Your task to perform on an android device: When is my next appointment? Image 0: 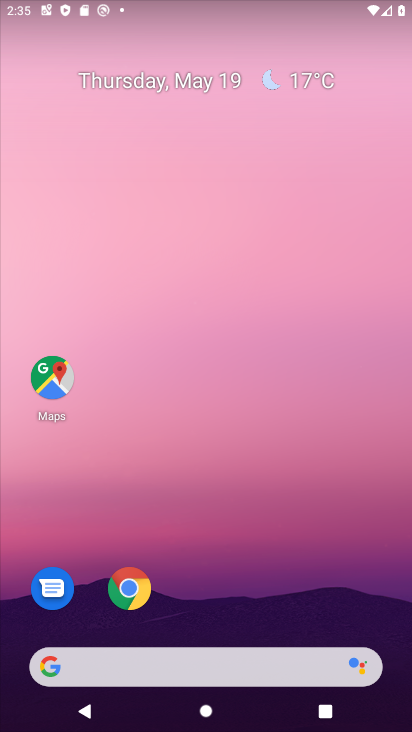
Step 0: drag from (291, 512) to (293, 27)
Your task to perform on an android device: When is my next appointment? Image 1: 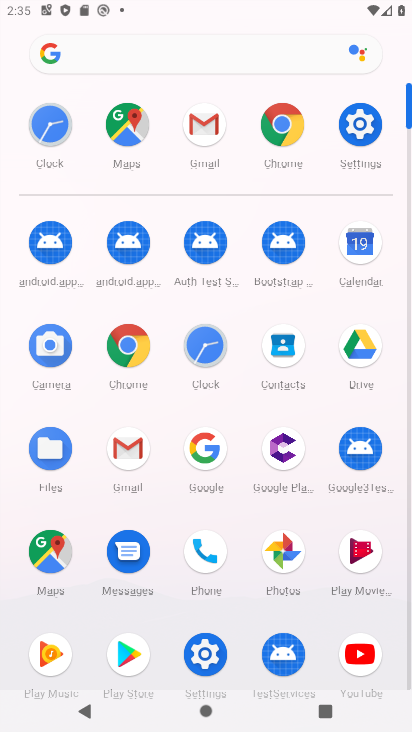
Step 1: click (358, 233)
Your task to perform on an android device: When is my next appointment? Image 2: 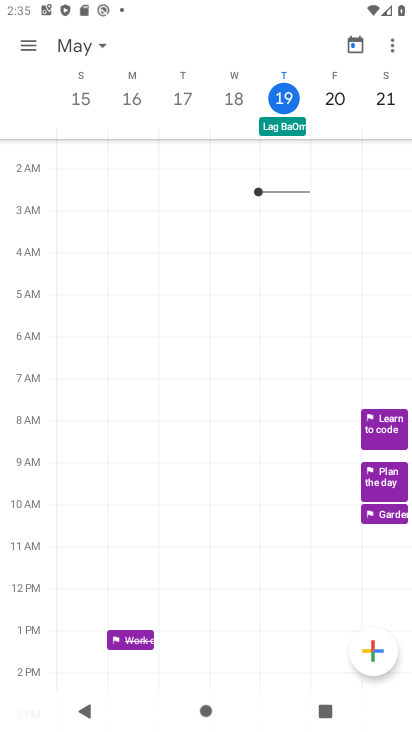
Step 2: click (35, 45)
Your task to perform on an android device: When is my next appointment? Image 3: 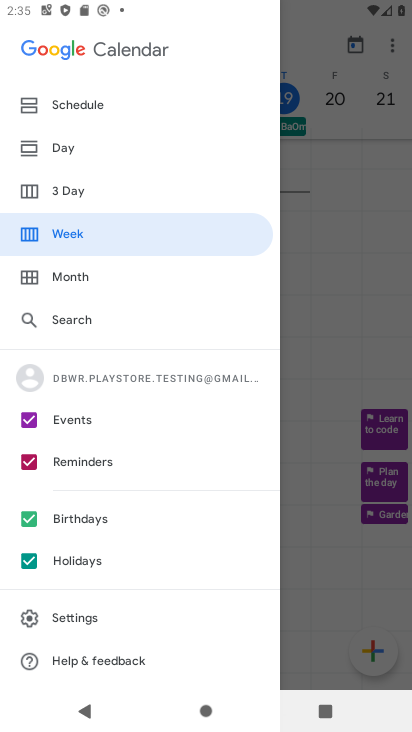
Step 3: click (392, 258)
Your task to perform on an android device: When is my next appointment? Image 4: 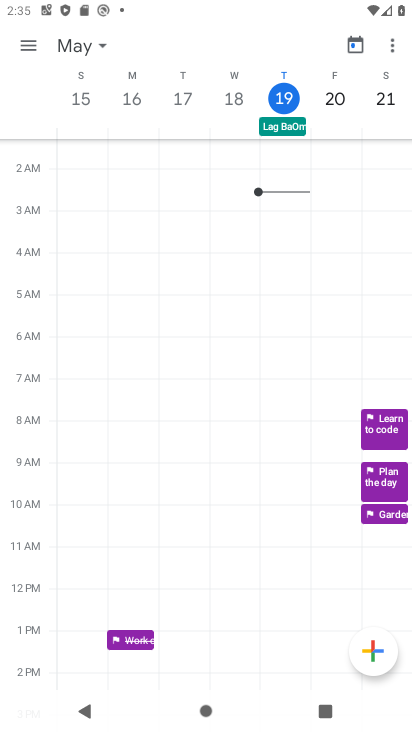
Step 4: click (331, 100)
Your task to perform on an android device: When is my next appointment? Image 5: 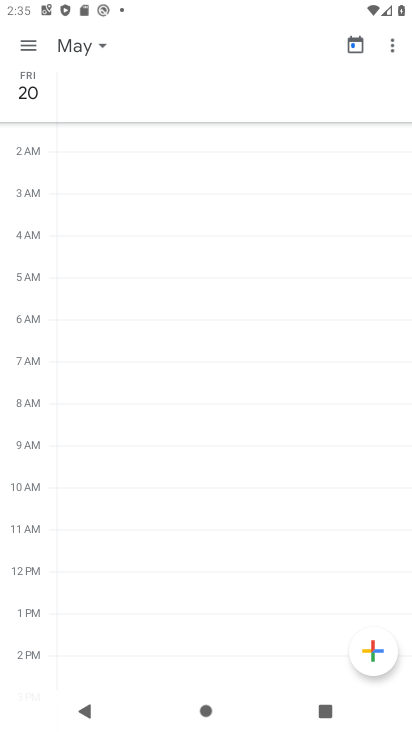
Step 5: click (85, 51)
Your task to perform on an android device: When is my next appointment? Image 6: 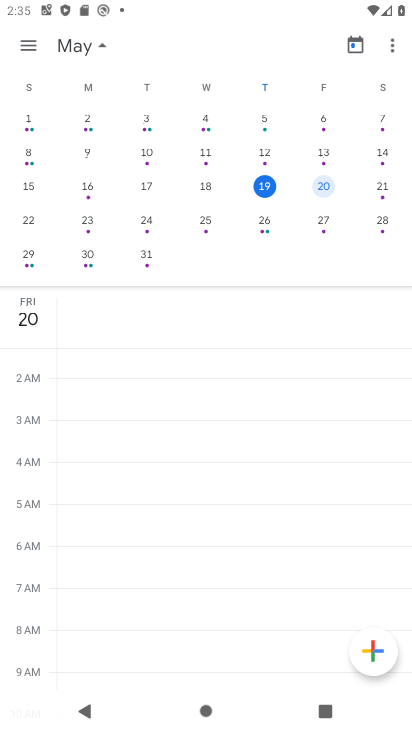
Step 6: click (62, 48)
Your task to perform on an android device: When is my next appointment? Image 7: 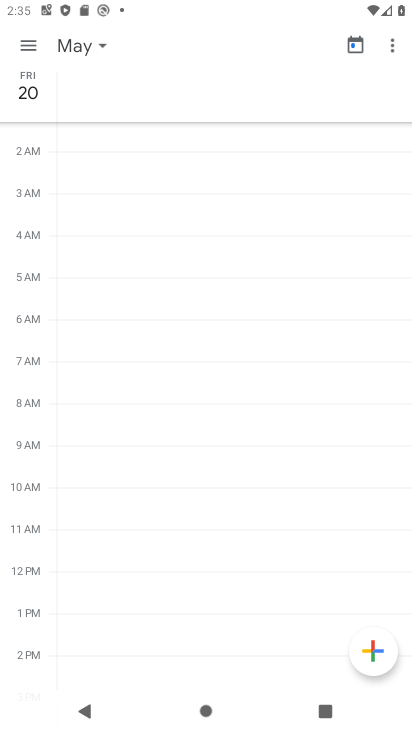
Step 7: click (22, 40)
Your task to perform on an android device: When is my next appointment? Image 8: 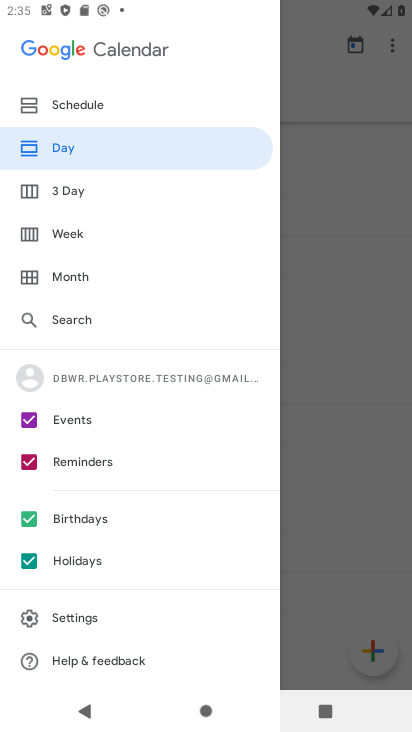
Step 8: click (64, 188)
Your task to perform on an android device: When is my next appointment? Image 9: 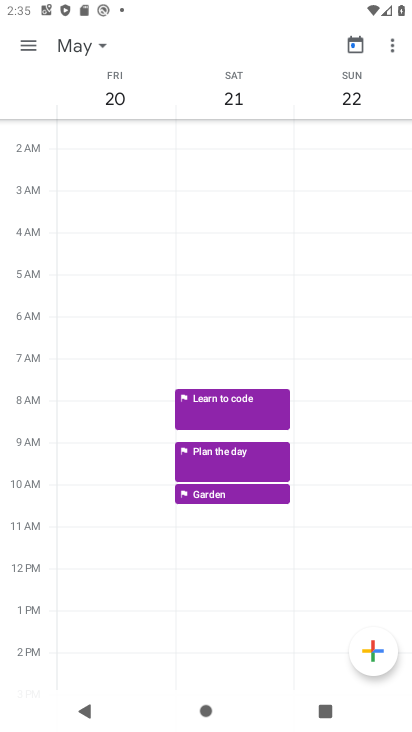
Step 9: task complete